Your task to perform on an android device: Go to sound settings Image 0: 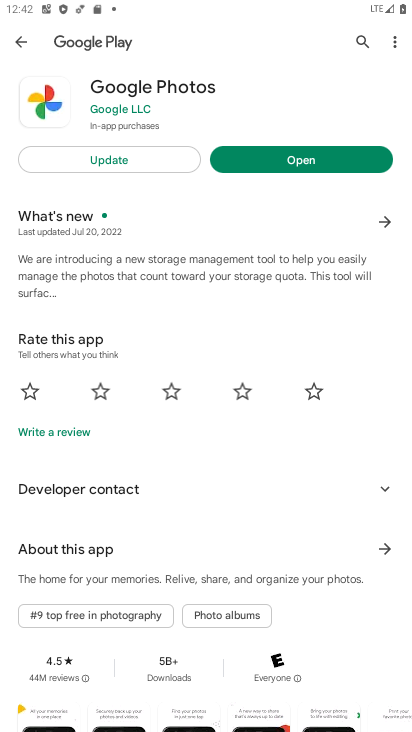
Step 0: press home button
Your task to perform on an android device: Go to sound settings Image 1: 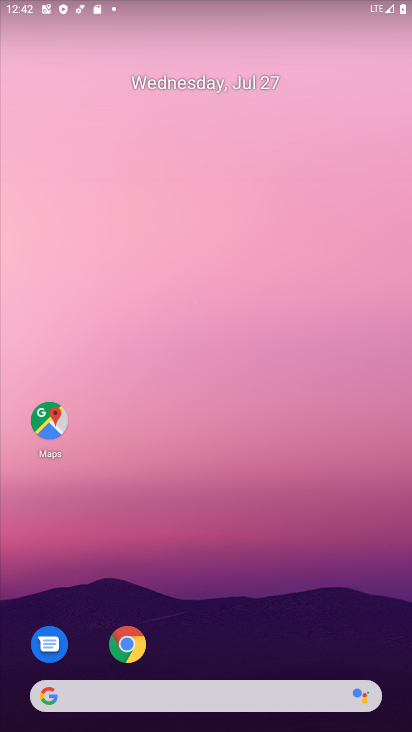
Step 1: drag from (175, 661) to (188, 44)
Your task to perform on an android device: Go to sound settings Image 2: 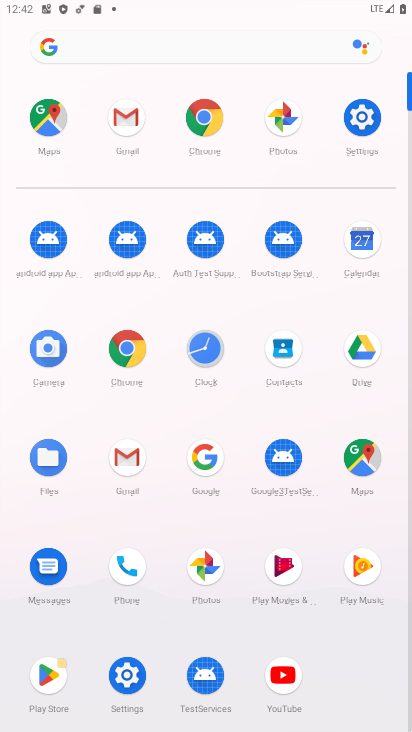
Step 2: click (368, 141)
Your task to perform on an android device: Go to sound settings Image 3: 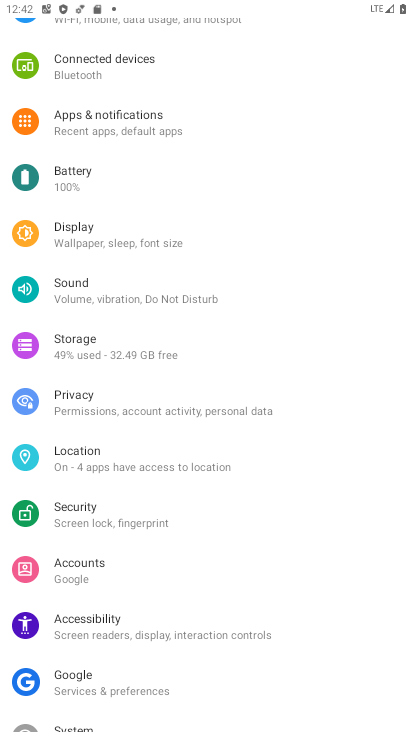
Step 3: click (90, 294)
Your task to perform on an android device: Go to sound settings Image 4: 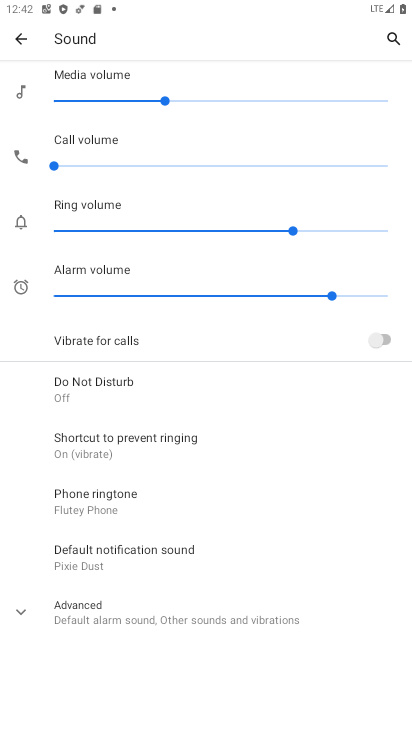
Step 4: task complete